Your task to perform on an android device: Go to eBay Image 0: 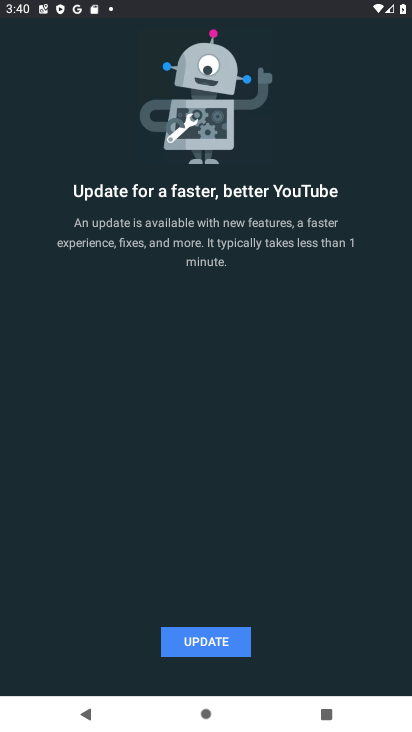
Step 0: press home button
Your task to perform on an android device: Go to eBay Image 1: 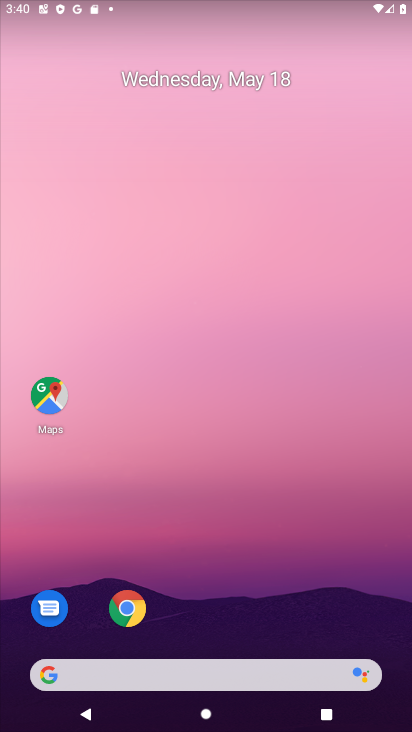
Step 1: drag from (210, 604) to (233, 227)
Your task to perform on an android device: Go to eBay Image 2: 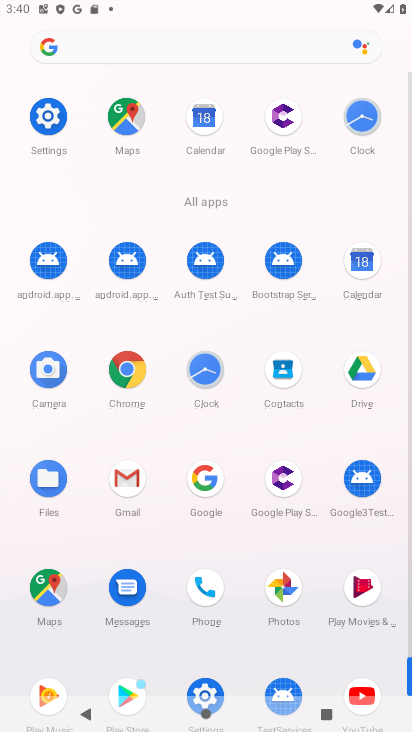
Step 2: click (205, 493)
Your task to perform on an android device: Go to eBay Image 3: 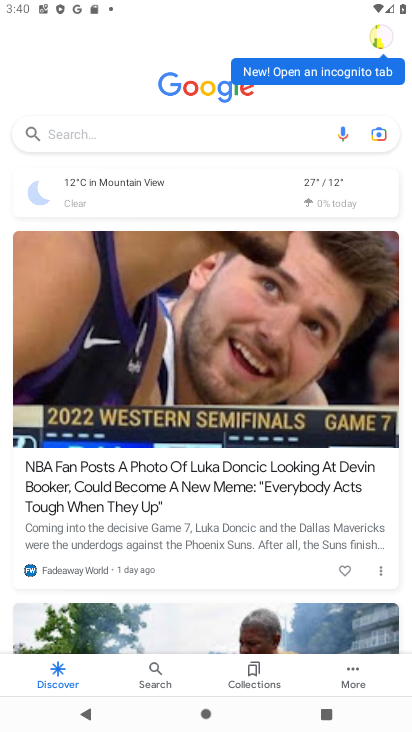
Step 3: click (143, 133)
Your task to perform on an android device: Go to eBay Image 4: 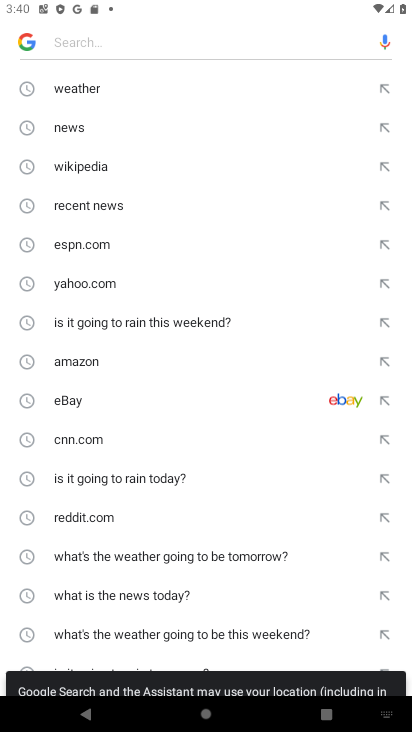
Step 4: click (84, 394)
Your task to perform on an android device: Go to eBay Image 5: 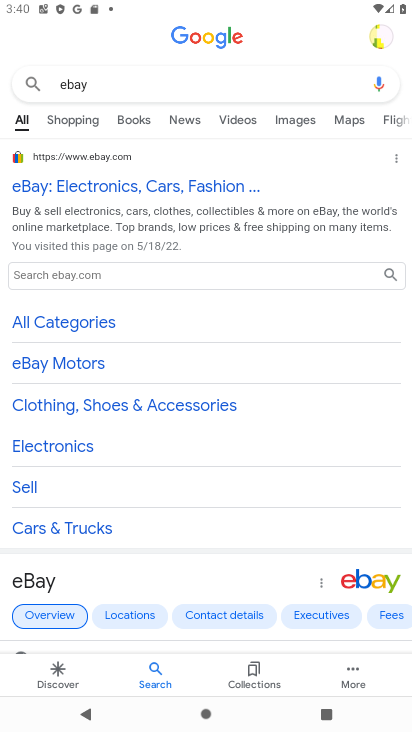
Step 5: task complete